Your task to perform on an android device: Open calendar and show me the third week of next month Image 0: 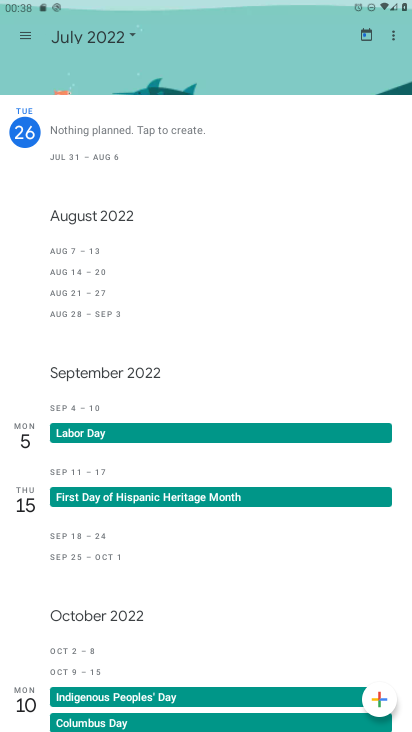
Step 0: press home button
Your task to perform on an android device: Open calendar and show me the third week of next month Image 1: 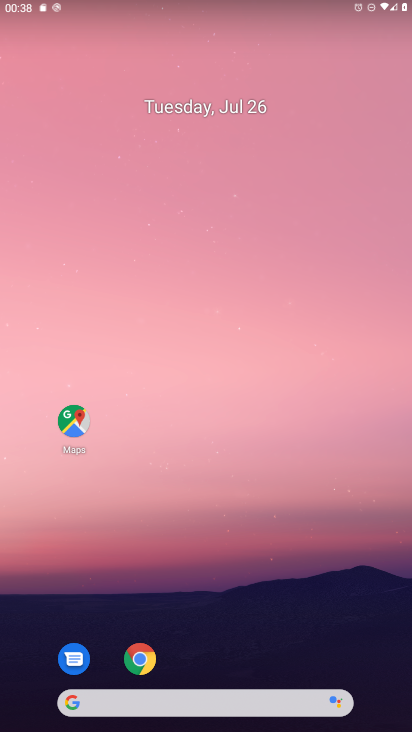
Step 1: drag from (291, 685) to (294, 214)
Your task to perform on an android device: Open calendar and show me the third week of next month Image 2: 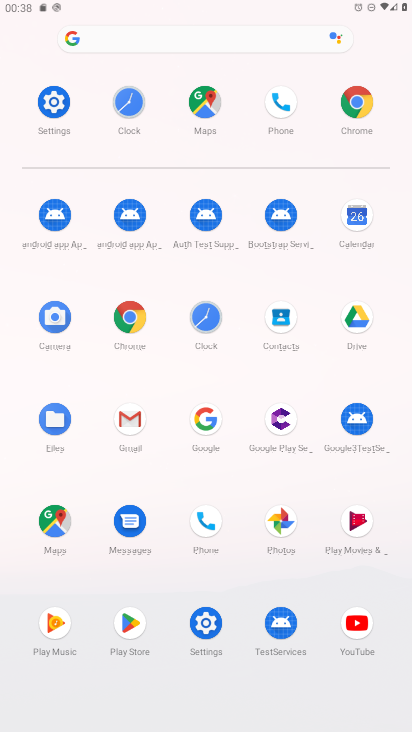
Step 2: click (354, 225)
Your task to perform on an android device: Open calendar and show me the third week of next month Image 3: 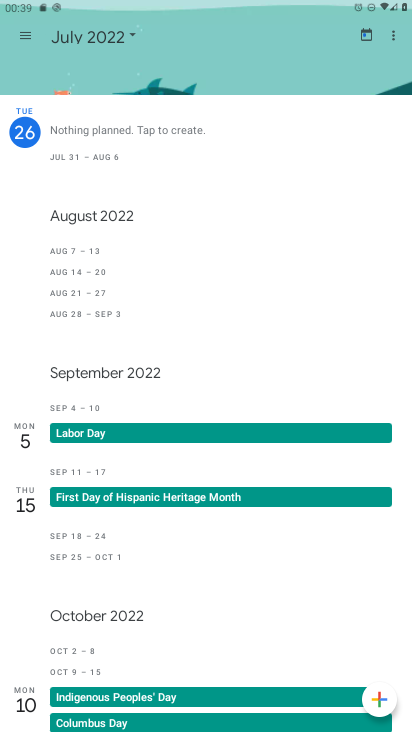
Step 3: click (107, 27)
Your task to perform on an android device: Open calendar and show me the third week of next month Image 4: 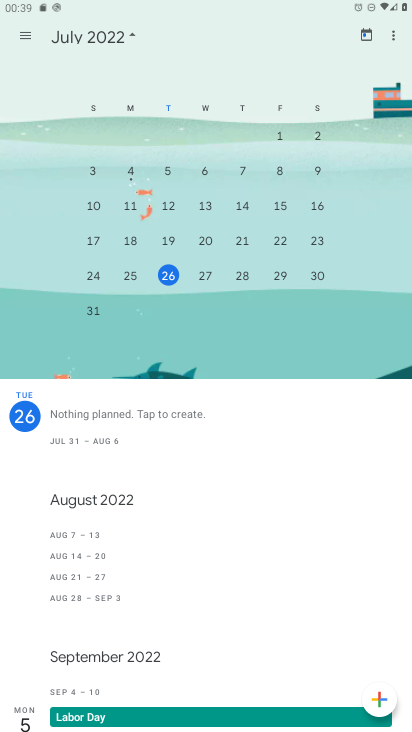
Step 4: drag from (281, 251) to (65, 325)
Your task to perform on an android device: Open calendar and show me the third week of next month Image 5: 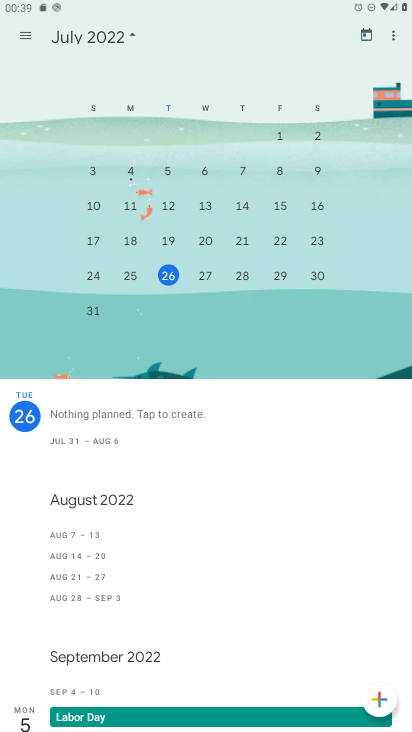
Step 5: drag from (363, 195) to (266, 218)
Your task to perform on an android device: Open calendar and show me the third week of next month Image 6: 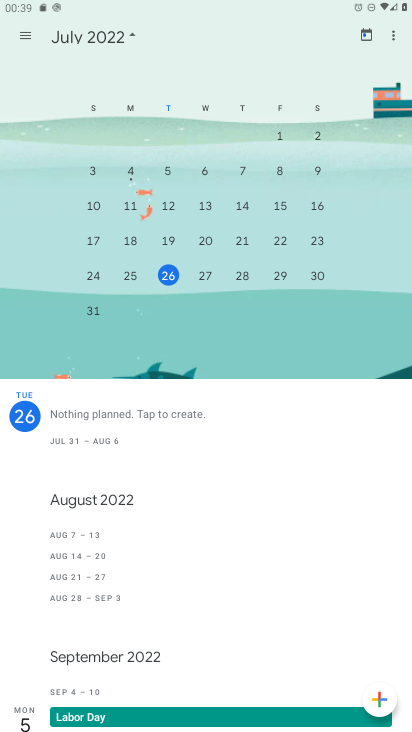
Step 6: drag from (389, 238) to (0, 305)
Your task to perform on an android device: Open calendar and show me the third week of next month Image 7: 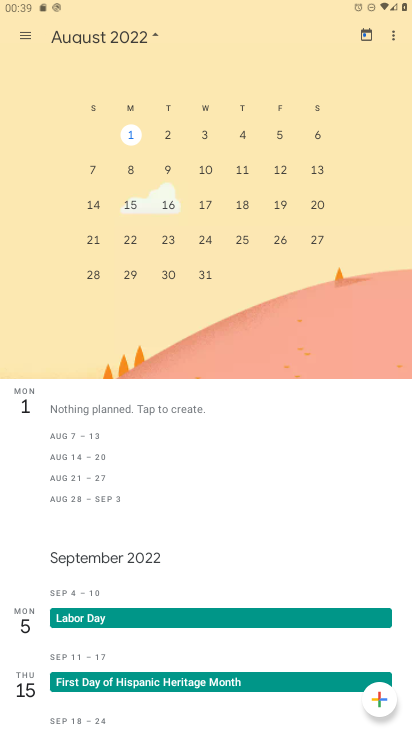
Step 7: click (123, 200)
Your task to perform on an android device: Open calendar and show me the third week of next month Image 8: 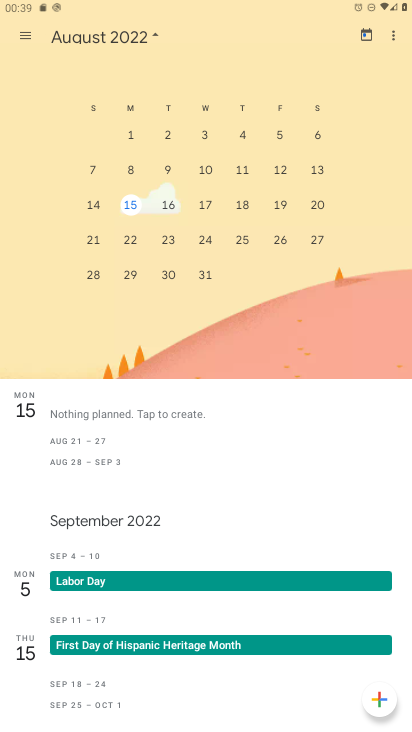
Step 8: task complete